Your task to perform on an android device: add a contact Image 0: 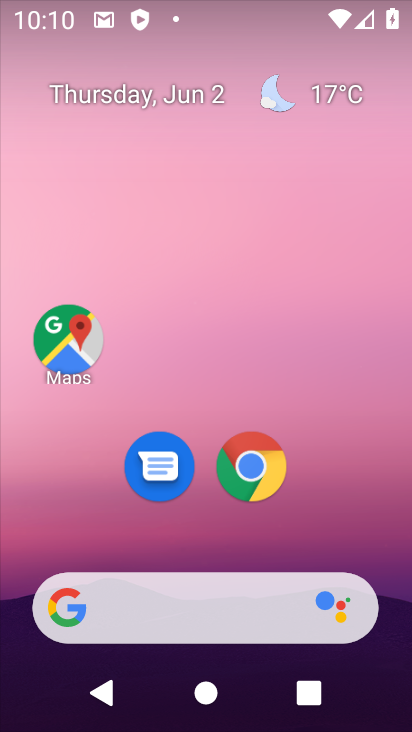
Step 0: drag from (317, 453) to (319, 47)
Your task to perform on an android device: add a contact Image 1: 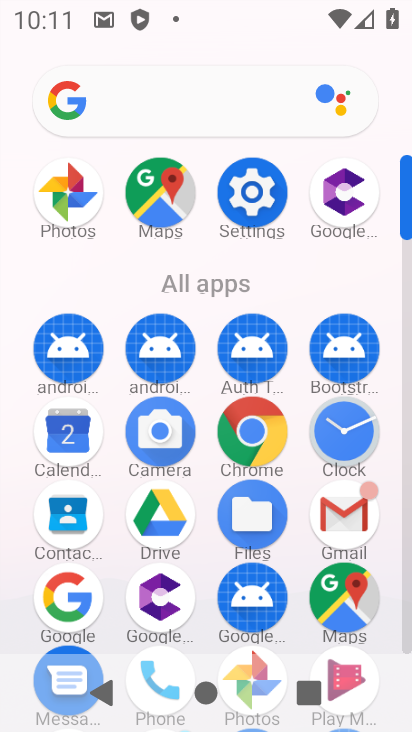
Step 1: click (69, 521)
Your task to perform on an android device: add a contact Image 2: 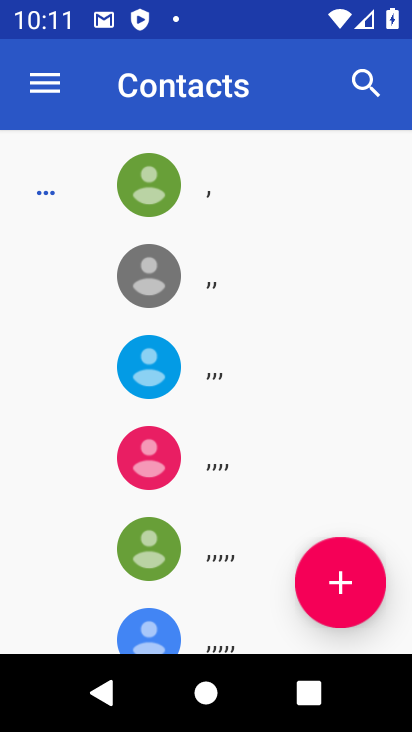
Step 2: click (328, 576)
Your task to perform on an android device: add a contact Image 3: 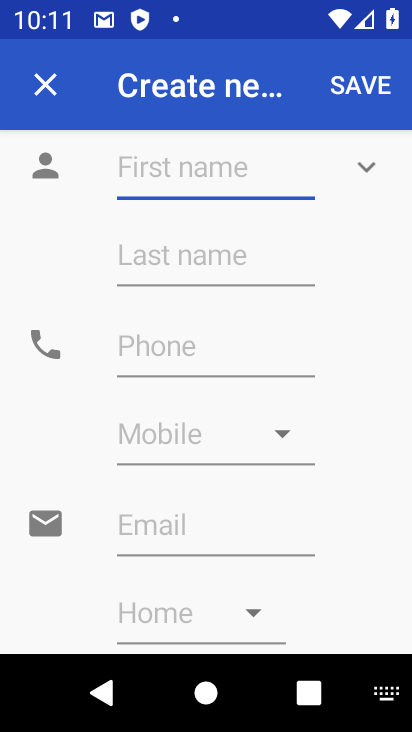
Step 3: type "uyutduy"
Your task to perform on an android device: add a contact Image 4: 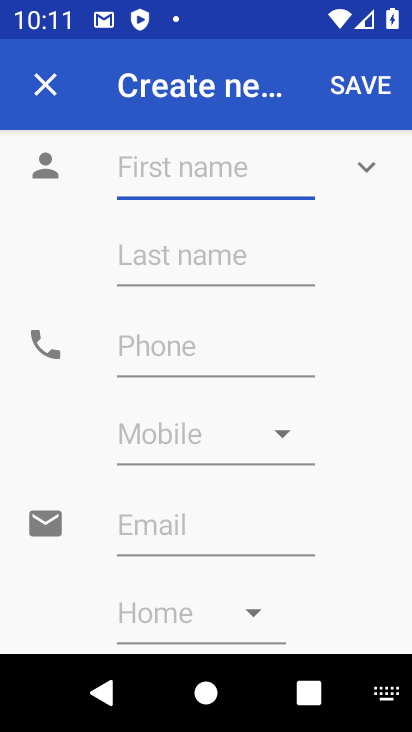
Step 4: click (229, 176)
Your task to perform on an android device: add a contact Image 5: 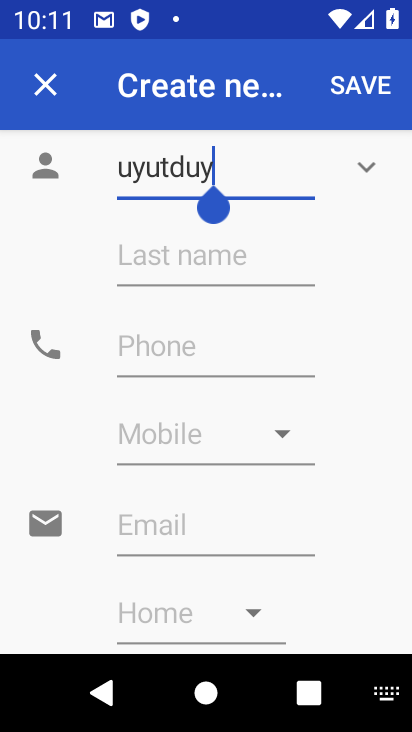
Step 5: click (185, 346)
Your task to perform on an android device: add a contact Image 6: 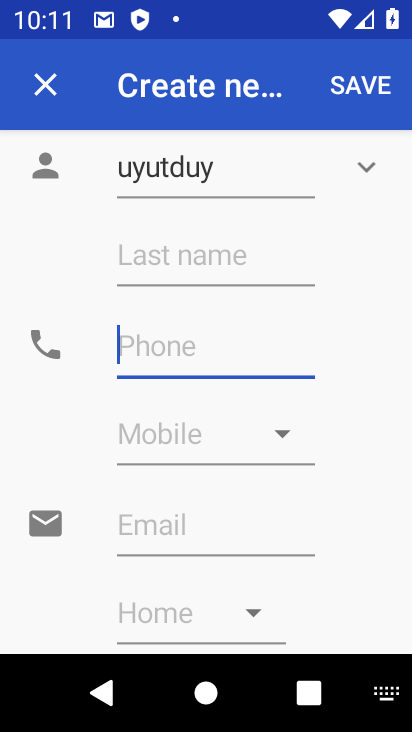
Step 6: click (187, 351)
Your task to perform on an android device: add a contact Image 7: 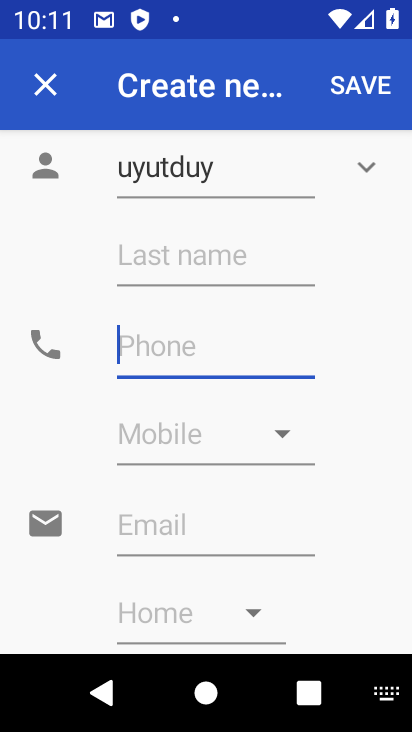
Step 7: click (218, 342)
Your task to perform on an android device: add a contact Image 8: 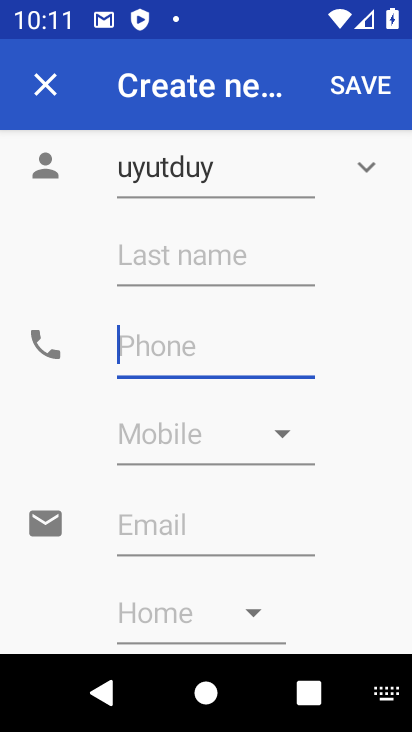
Step 8: type "36365656565454"
Your task to perform on an android device: add a contact Image 9: 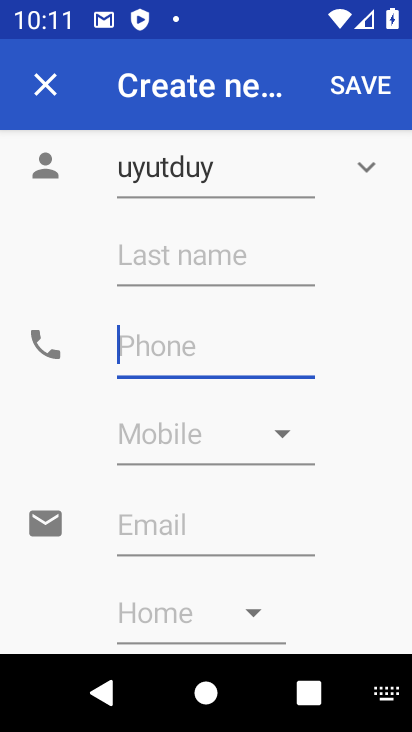
Step 9: click (219, 351)
Your task to perform on an android device: add a contact Image 10: 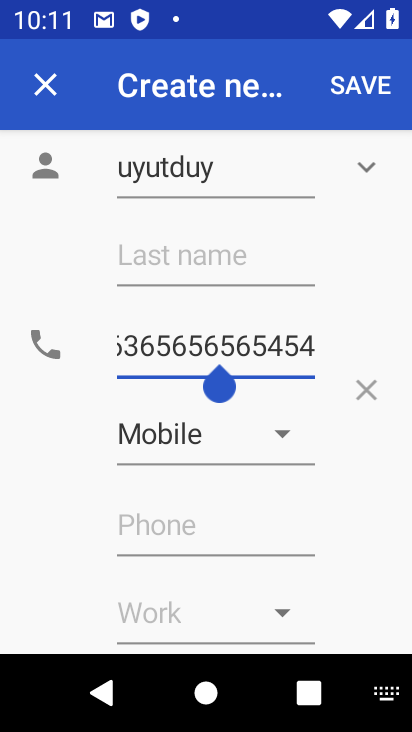
Step 10: click (352, 94)
Your task to perform on an android device: add a contact Image 11: 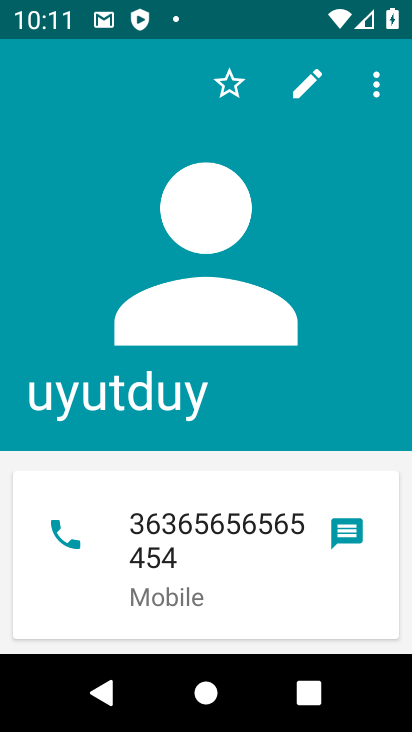
Step 11: task complete